Your task to perform on an android device: toggle javascript in the chrome app Image 0: 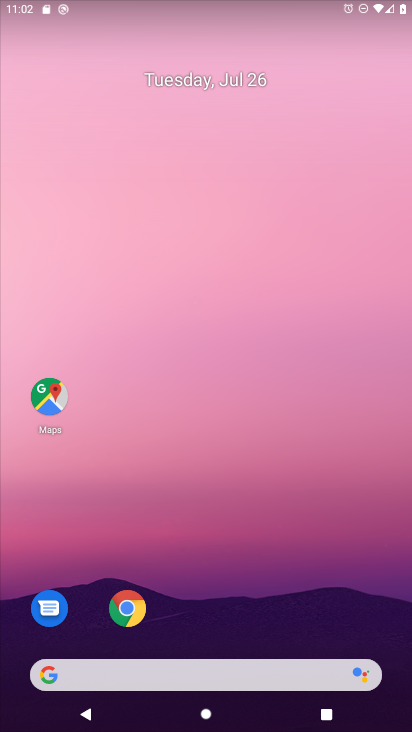
Step 0: drag from (297, 569) to (359, 101)
Your task to perform on an android device: toggle javascript in the chrome app Image 1: 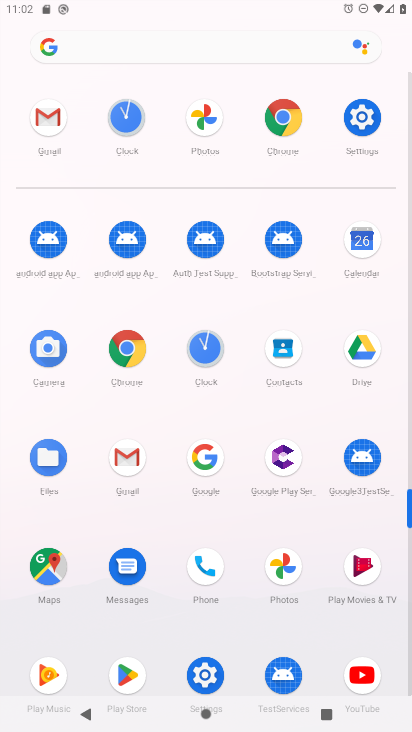
Step 1: click (285, 118)
Your task to perform on an android device: toggle javascript in the chrome app Image 2: 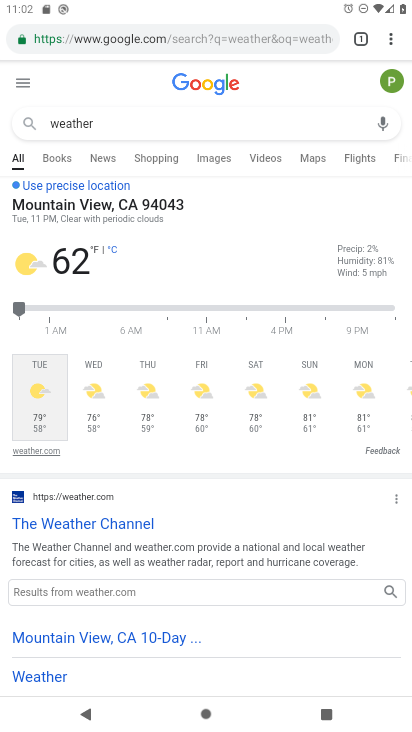
Step 2: drag from (401, 34) to (237, 440)
Your task to perform on an android device: toggle javascript in the chrome app Image 3: 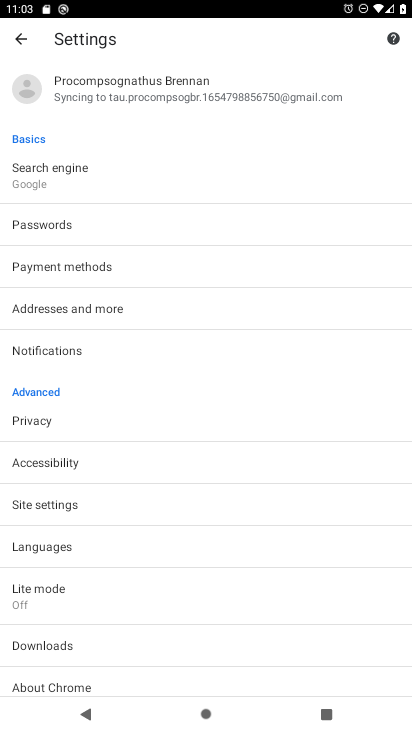
Step 3: click (70, 510)
Your task to perform on an android device: toggle javascript in the chrome app Image 4: 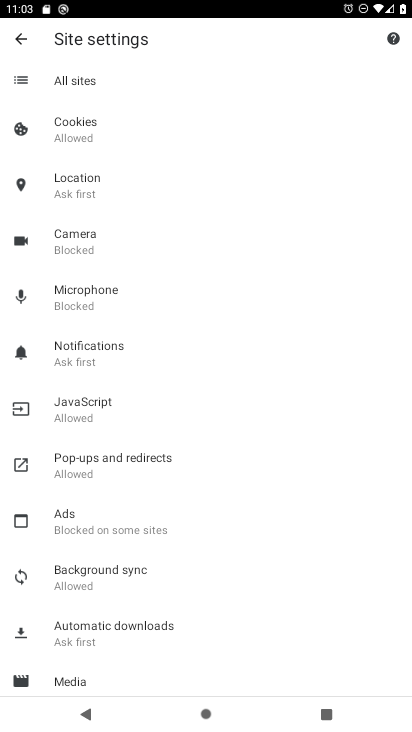
Step 4: click (80, 412)
Your task to perform on an android device: toggle javascript in the chrome app Image 5: 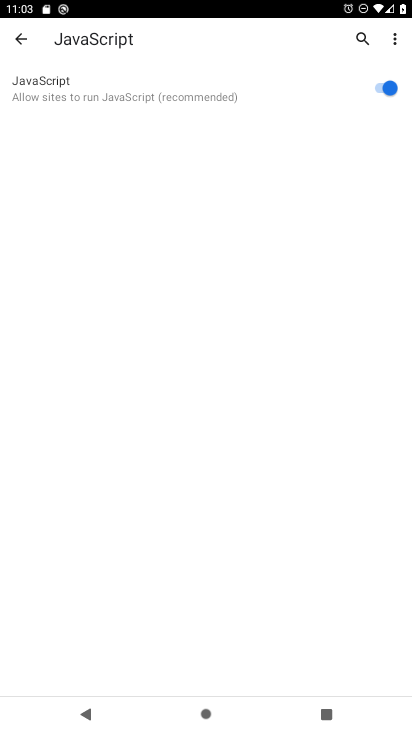
Step 5: click (383, 77)
Your task to perform on an android device: toggle javascript in the chrome app Image 6: 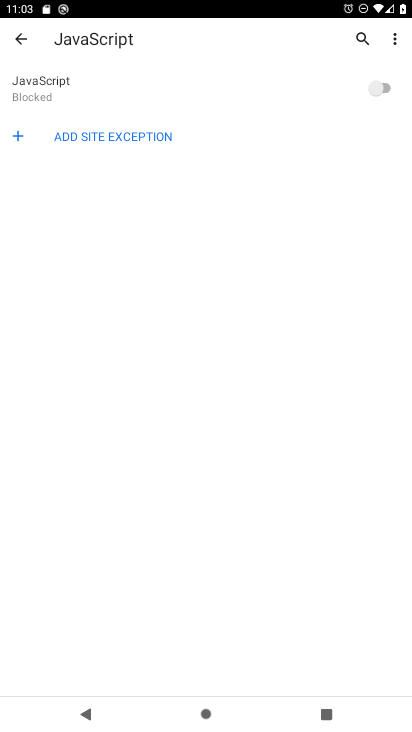
Step 6: task complete